Your task to perform on an android device: Go to Maps Image 0: 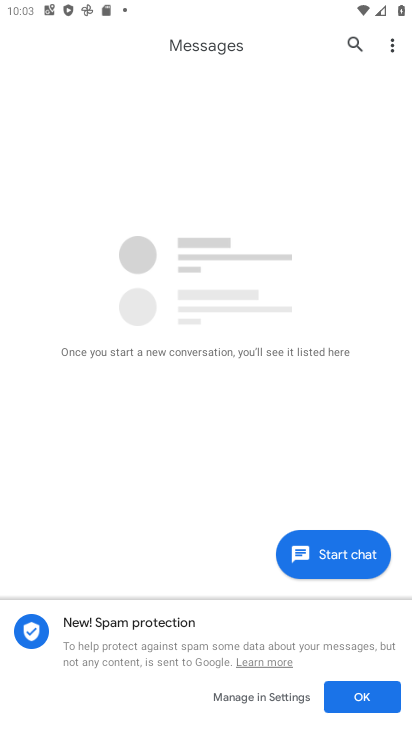
Step 0: press home button
Your task to perform on an android device: Go to Maps Image 1: 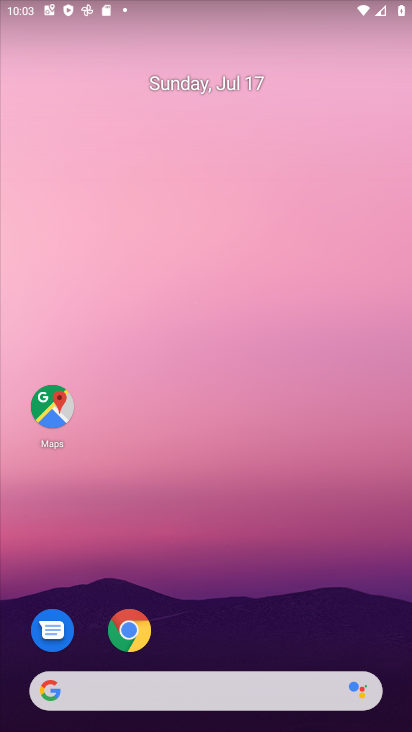
Step 1: click (59, 391)
Your task to perform on an android device: Go to Maps Image 2: 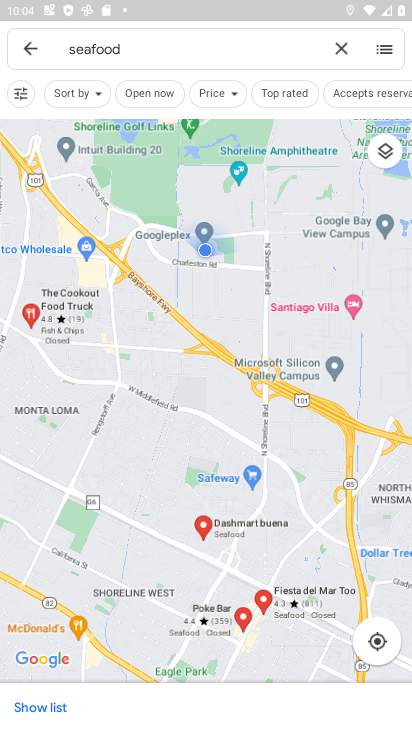
Step 2: task complete